Your task to perform on an android device: open app "Speedtest by Ookla" (install if not already installed) Image 0: 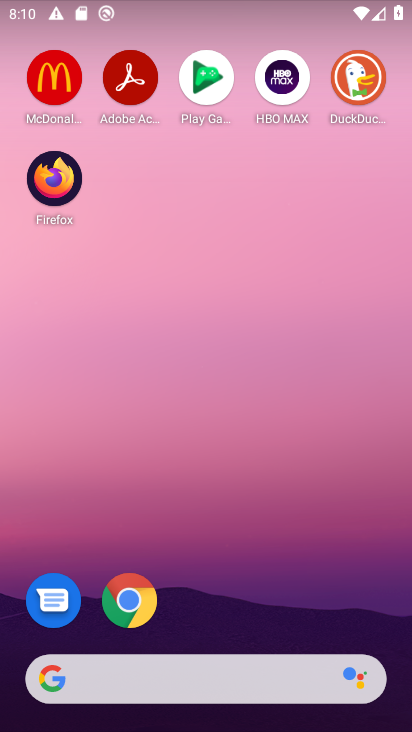
Step 0: drag from (236, 575) to (271, 201)
Your task to perform on an android device: open app "Speedtest by Ookla" (install if not already installed) Image 1: 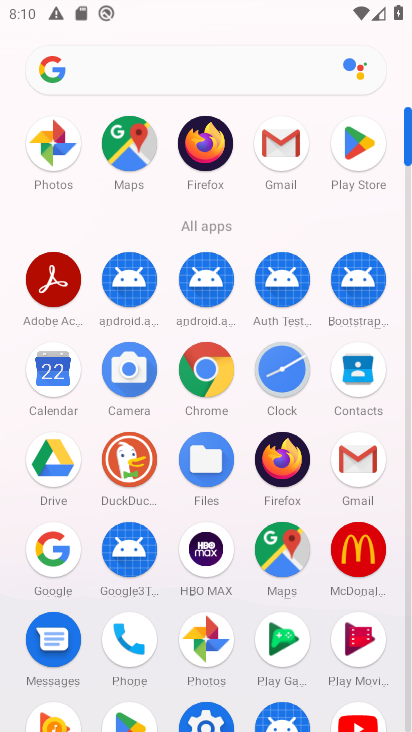
Step 1: click (340, 155)
Your task to perform on an android device: open app "Speedtest by Ookla" (install if not already installed) Image 2: 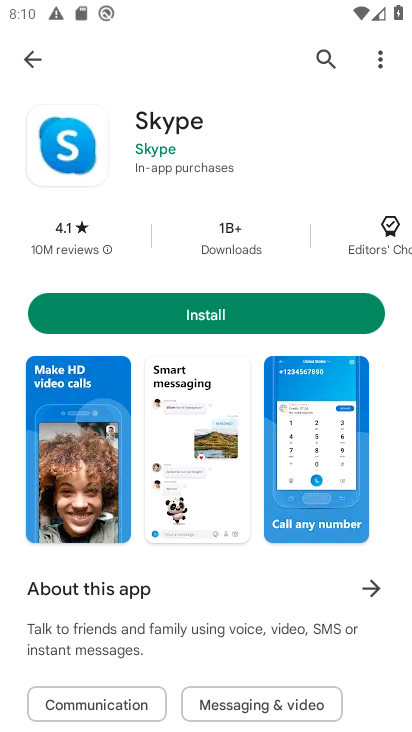
Step 2: click (316, 50)
Your task to perform on an android device: open app "Speedtest by Ookla" (install if not already installed) Image 3: 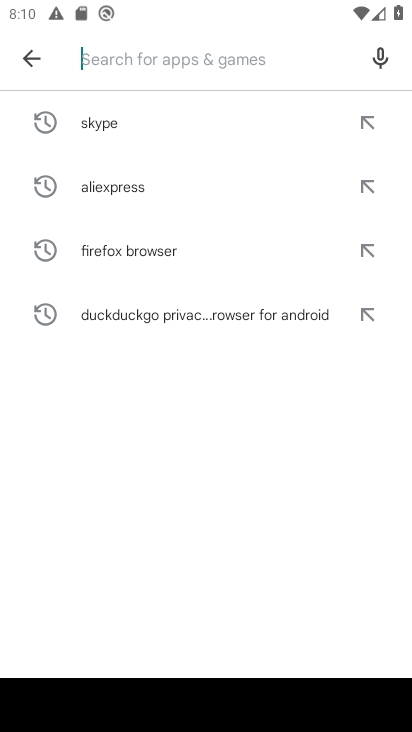
Step 3: click (268, 55)
Your task to perform on an android device: open app "Speedtest by Ookla" (install if not already installed) Image 4: 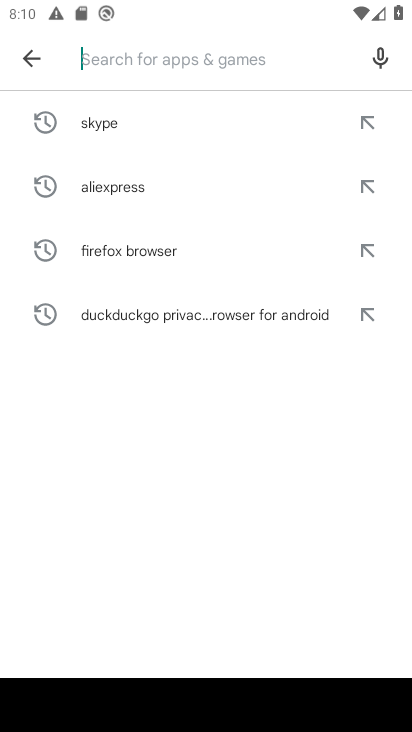
Step 4: type "Speedtest by Ookla"
Your task to perform on an android device: open app "Speedtest by Ookla" (install if not already installed) Image 5: 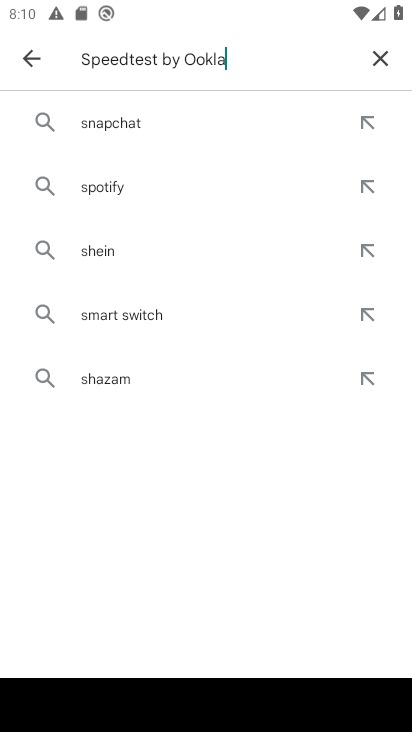
Step 5: type ""
Your task to perform on an android device: open app "Speedtest by Ookla" (install if not already installed) Image 6: 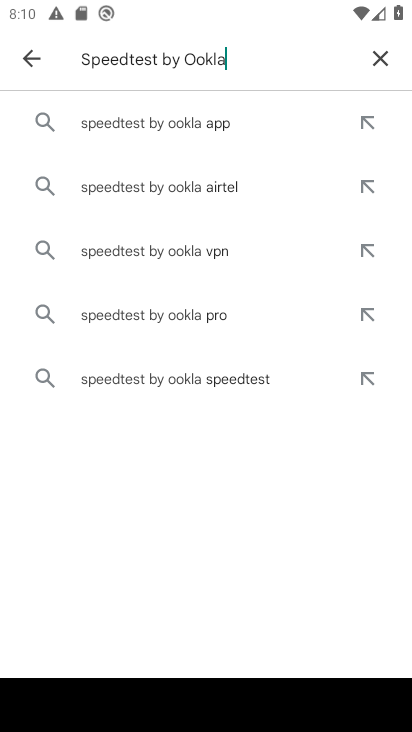
Step 6: click (152, 124)
Your task to perform on an android device: open app "Speedtest by Ookla" (install if not already installed) Image 7: 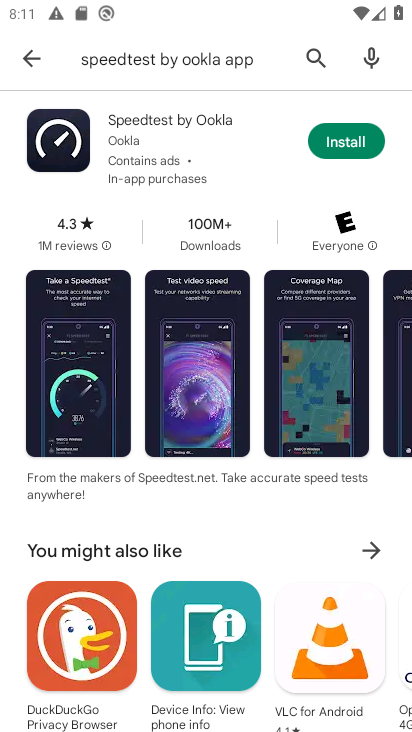
Step 7: click (336, 145)
Your task to perform on an android device: open app "Speedtest by Ookla" (install if not already installed) Image 8: 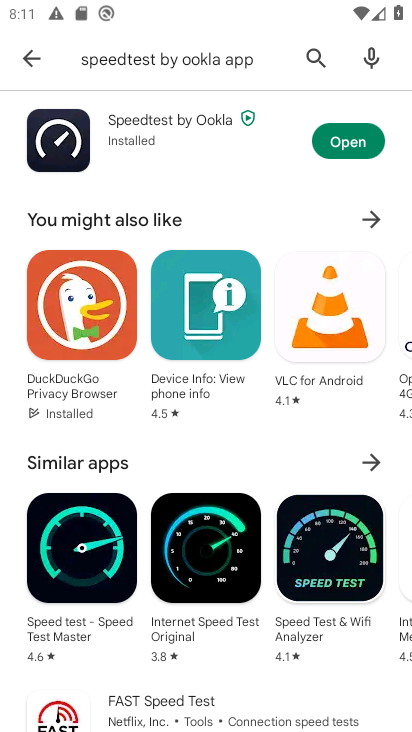
Step 8: click (350, 135)
Your task to perform on an android device: open app "Speedtest by Ookla" (install if not already installed) Image 9: 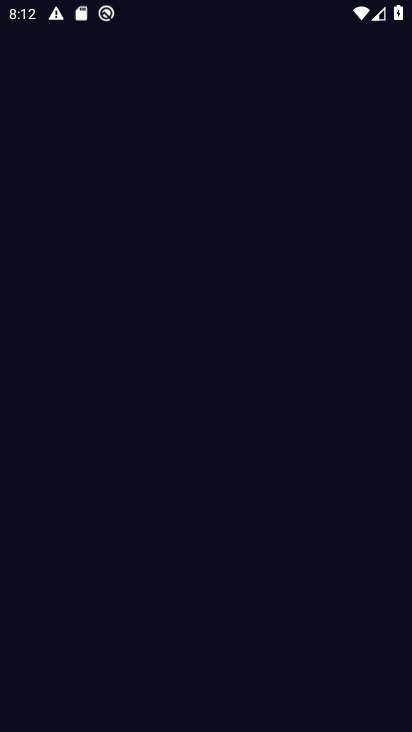
Step 9: task complete